Your task to perform on an android device: check google app version Image 0: 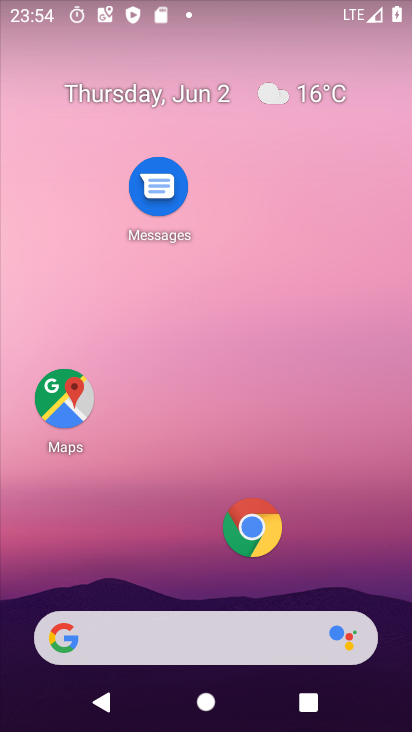
Step 0: drag from (214, 591) to (221, 137)
Your task to perform on an android device: check google app version Image 1: 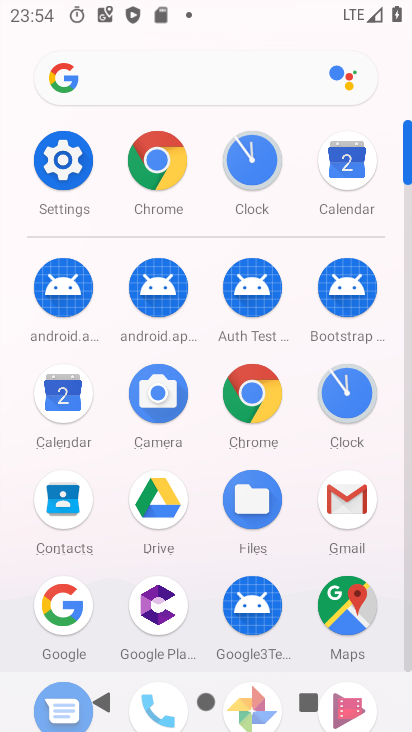
Step 1: click (60, 603)
Your task to perform on an android device: check google app version Image 2: 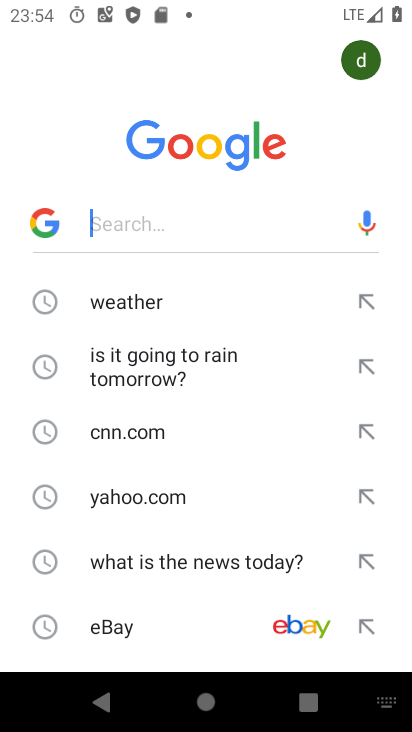
Step 2: press back button
Your task to perform on an android device: check google app version Image 3: 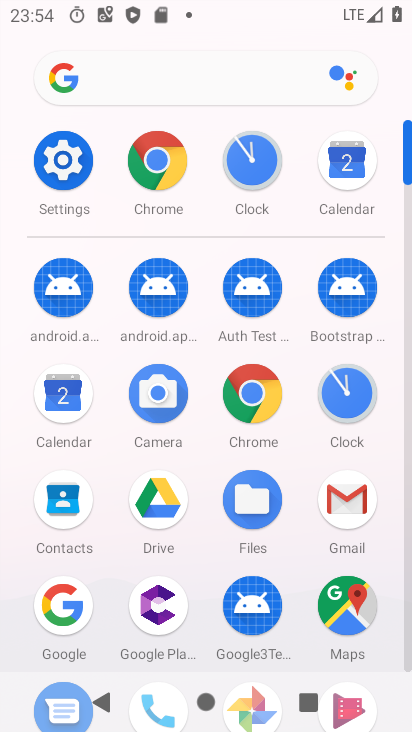
Step 3: click (58, 598)
Your task to perform on an android device: check google app version Image 4: 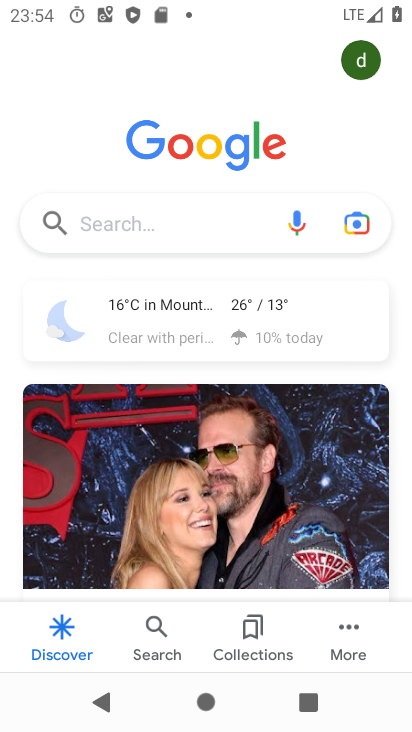
Step 4: click (347, 627)
Your task to perform on an android device: check google app version Image 5: 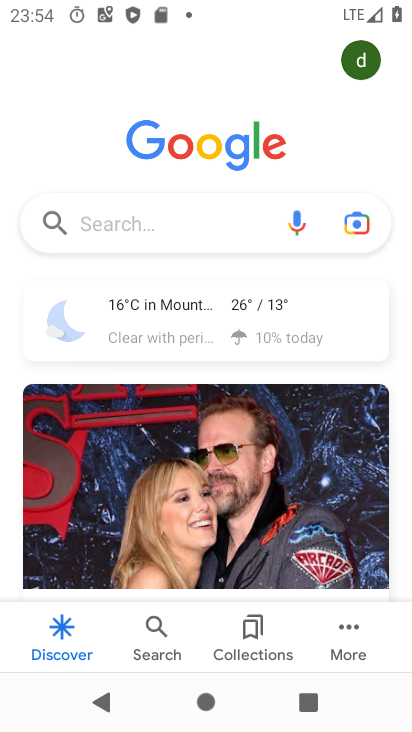
Step 5: click (346, 624)
Your task to perform on an android device: check google app version Image 6: 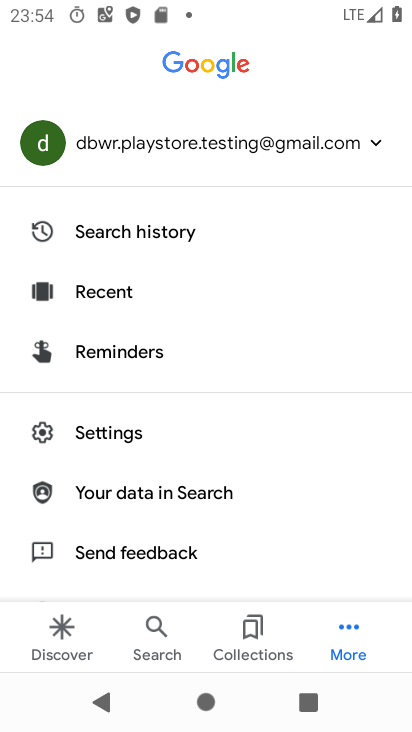
Step 6: click (156, 426)
Your task to perform on an android device: check google app version Image 7: 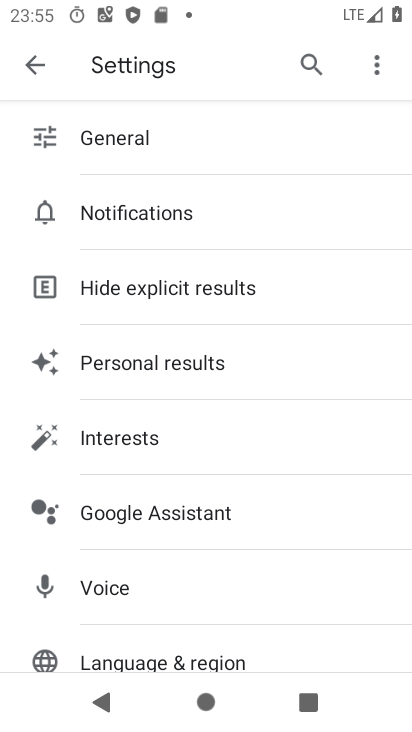
Step 7: drag from (182, 621) to (227, 101)
Your task to perform on an android device: check google app version Image 8: 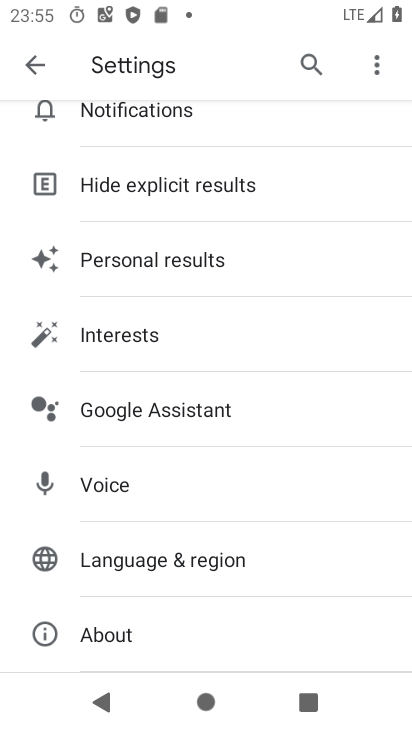
Step 8: click (149, 625)
Your task to perform on an android device: check google app version Image 9: 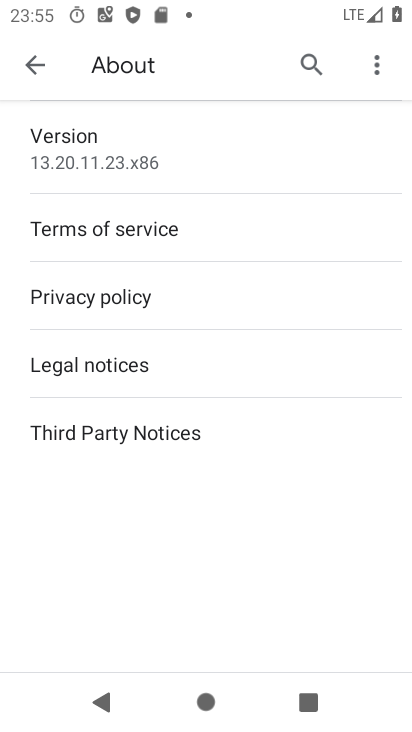
Step 9: task complete